Your task to perform on an android device: Open calendar and show me the third week of next month Image 0: 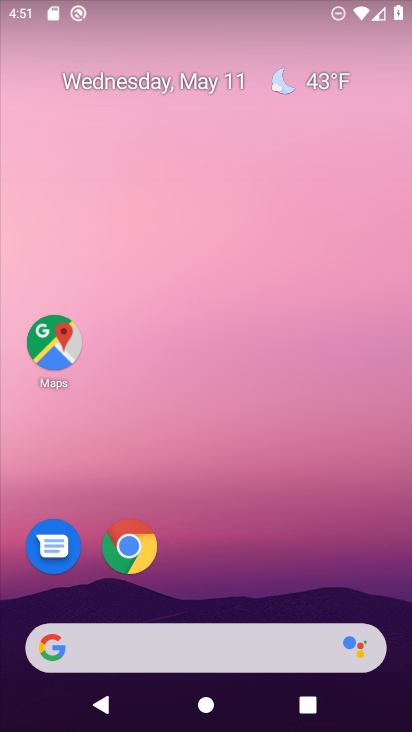
Step 0: drag from (192, 587) to (188, 236)
Your task to perform on an android device: Open calendar and show me the third week of next month Image 1: 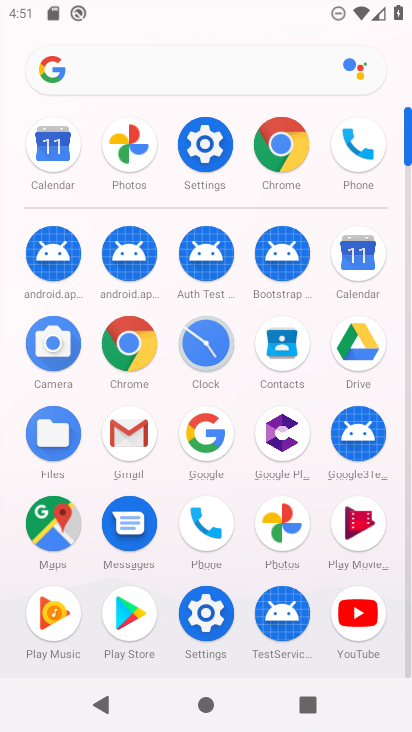
Step 1: click (353, 256)
Your task to perform on an android device: Open calendar and show me the third week of next month Image 2: 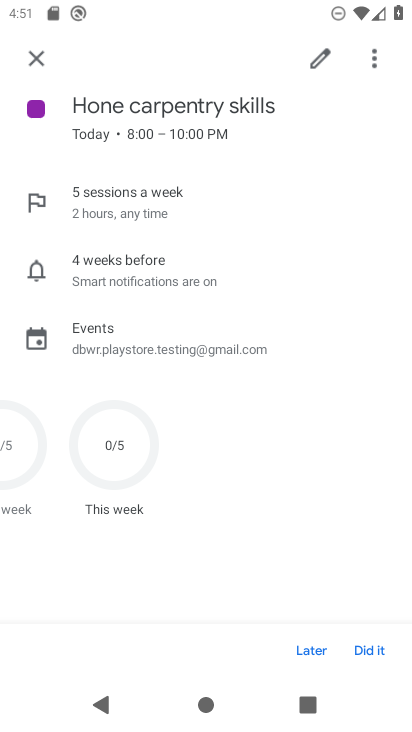
Step 2: click (43, 52)
Your task to perform on an android device: Open calendar and show me the third week of next month Image 3: 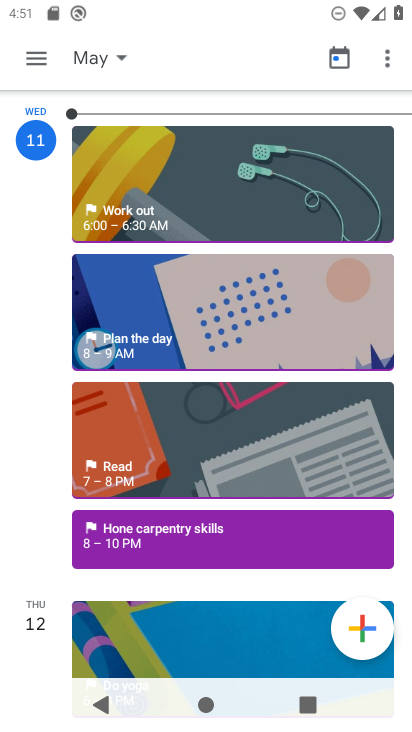
Step 3: click (98, 61)
Your task to perform on an android device: Open calendar and show me the third week of next month Image 4: 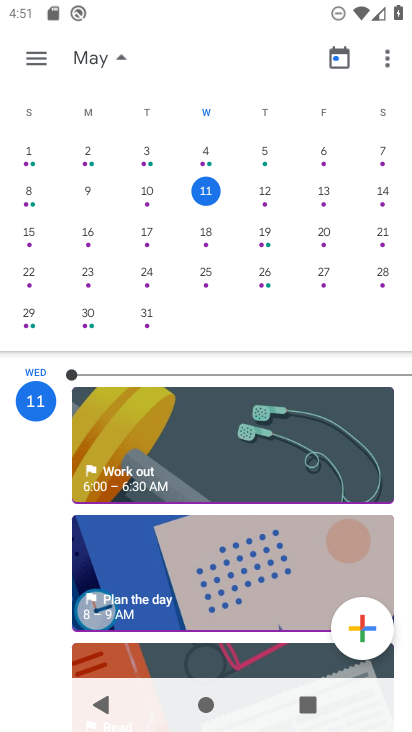
Step 4: drag from (359, 300) to (20, 315)
Your task to perform on an android device: Open calendar and show me the third week of next month Image 5: 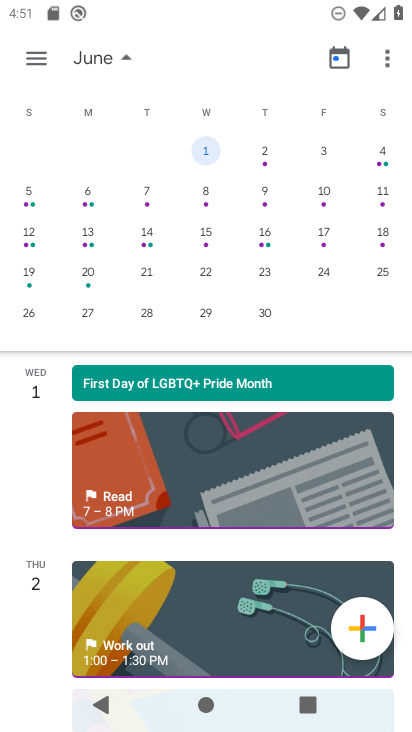
Step 5: click (33, 233)
Your task to perform on an android device: Open calendar and show me the third week of next month Image 6: 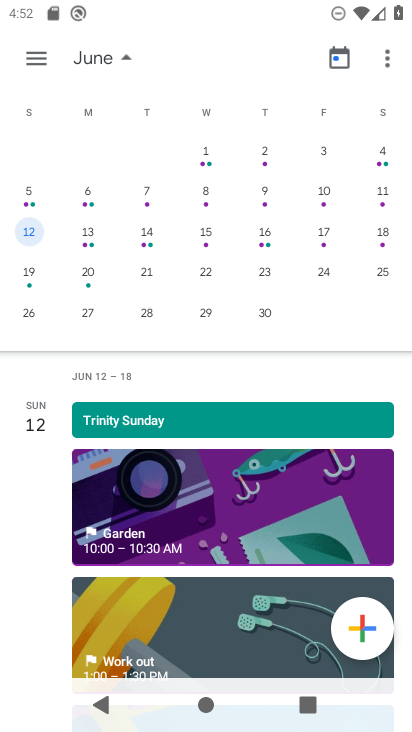
Step 6: task complete